Your task to perform on an android device: Open notification settings Image 0: 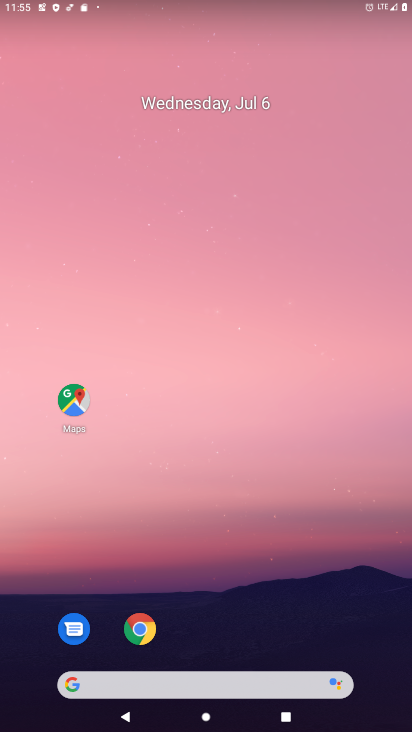
Step 0: drag from (246, 616) to (177, 36)
Your task to perform on an android device: Open notification settings Image 1: 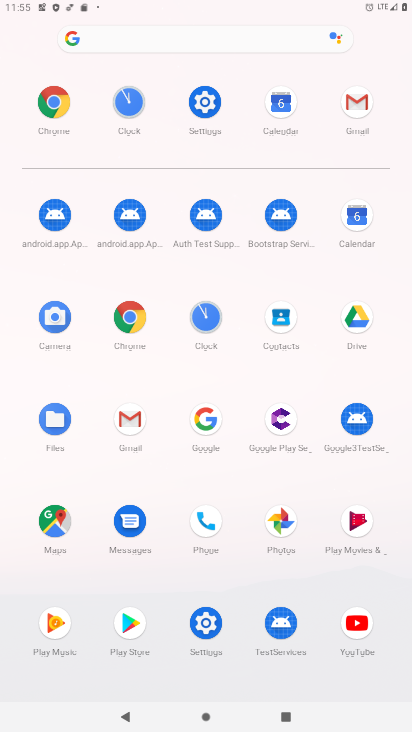
Step 1: click (206, 99)
Your task to perform on an android device: Open notification settings Image 2: 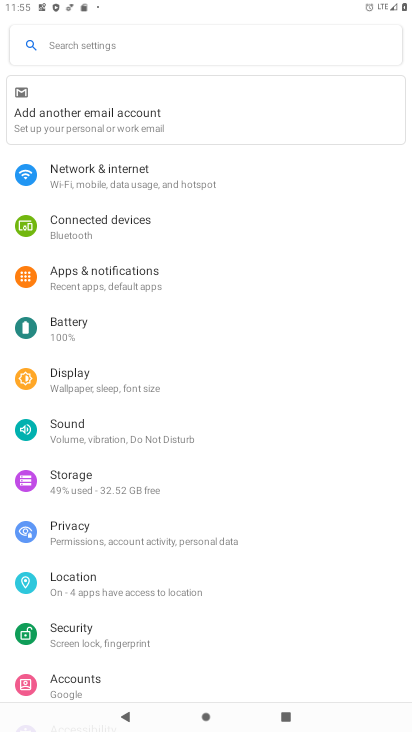
Step 2: click (140, 272)
Your task to perform on an android device: Open notification settings Image 3: 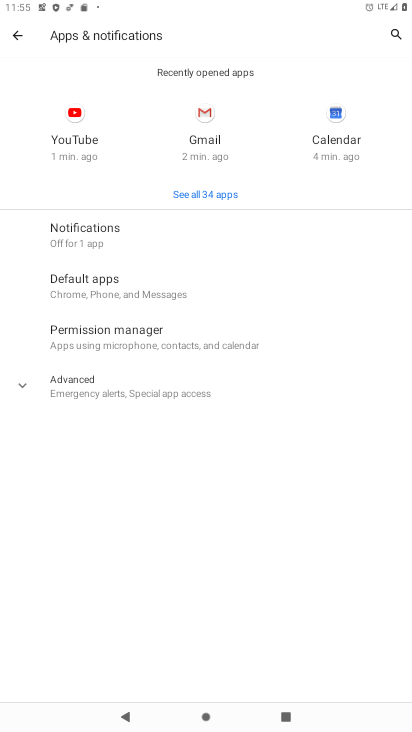
Step 3: click (94, 232)
Your task to perform on an android device: Open notification settings Image 4: 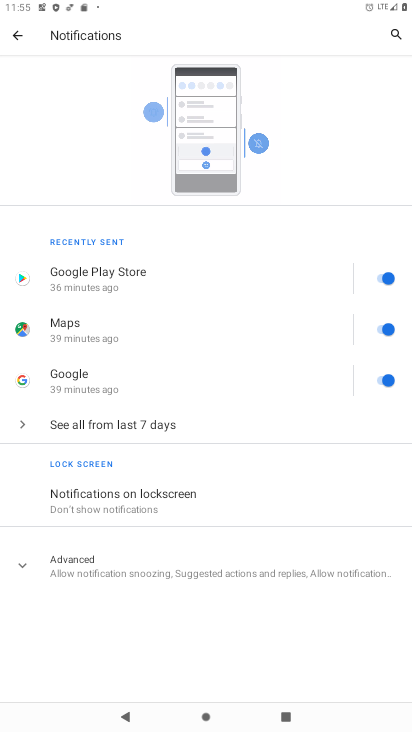
Step 4: task complete